Your task to perform on an android device: change timer sound Image 0: 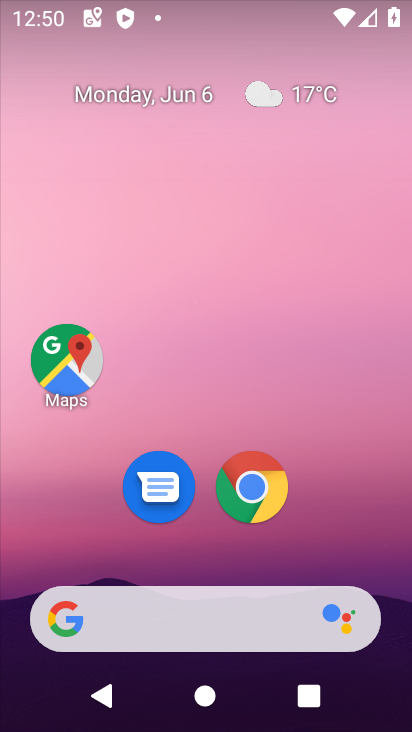
Step 0: drag from (175, 591) to (260, 21)
Your task to perform on an android device: change timer sound Image 1: 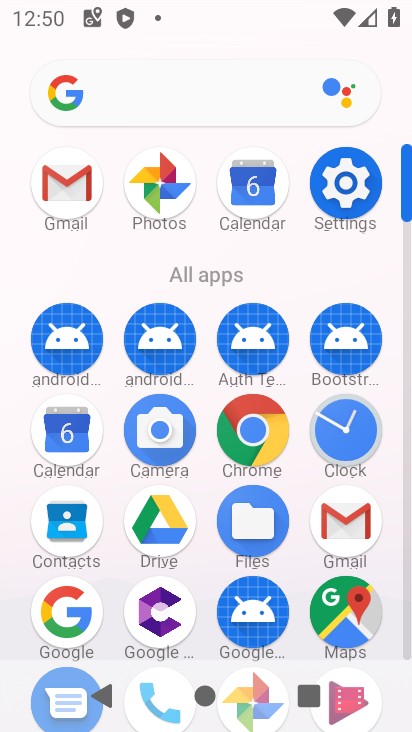
Step 1: click (358, 188)
Your task to perform on an android device: change timer sound Image 2: 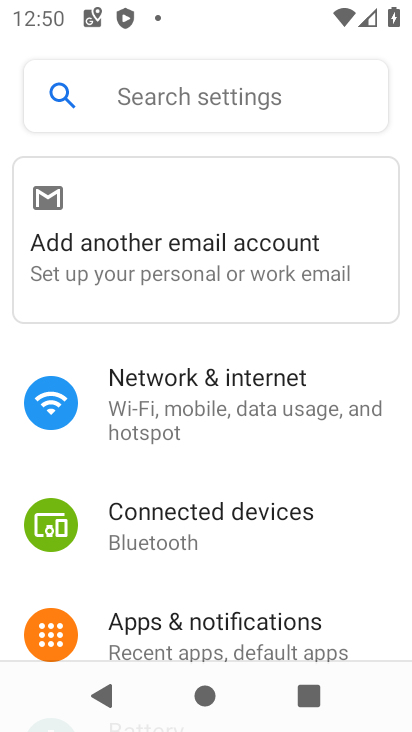
Step 2: press back button
Your task to perform on an android device: change timer sound Image 3: 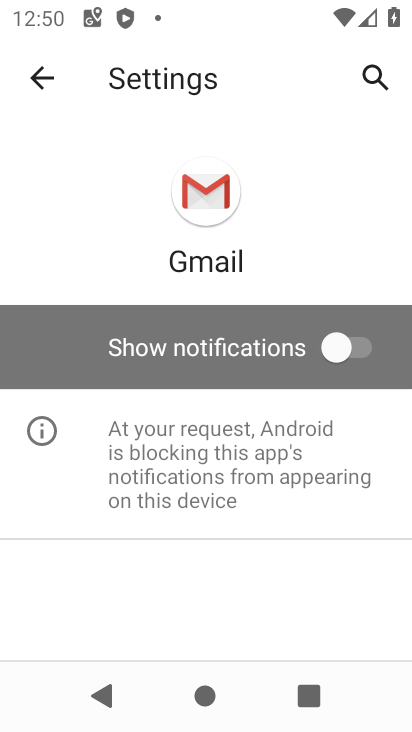
Step 3: press back button
Your task to perform on an android device: change timer sound Image 4: 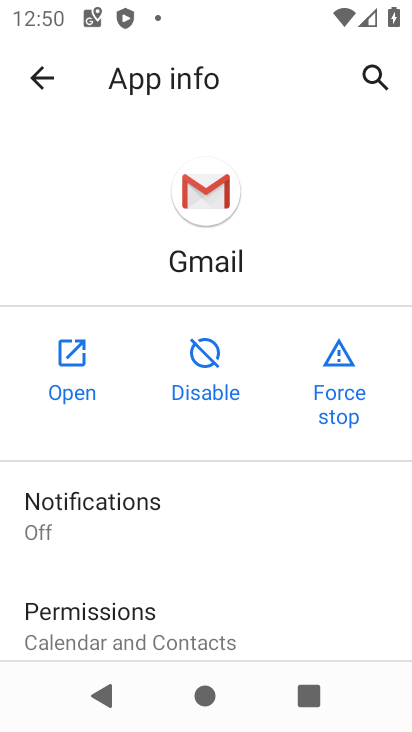
Step 4: press back button
Your task to perform on an android device: change timer sound Image 5: 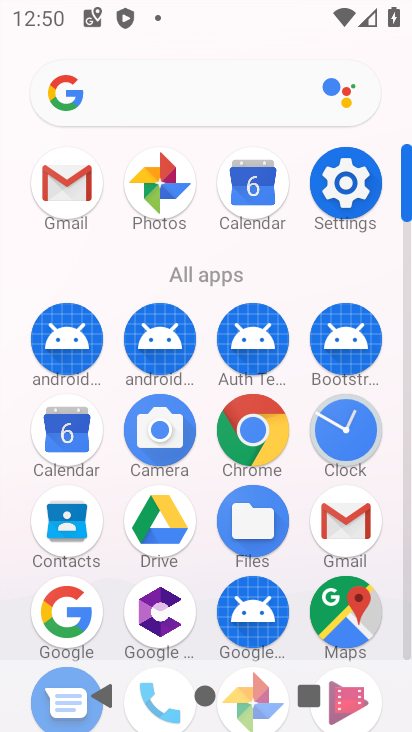
Step 5: click (357, 437)
Your task to perform on an android device: change timer sound Image 6: 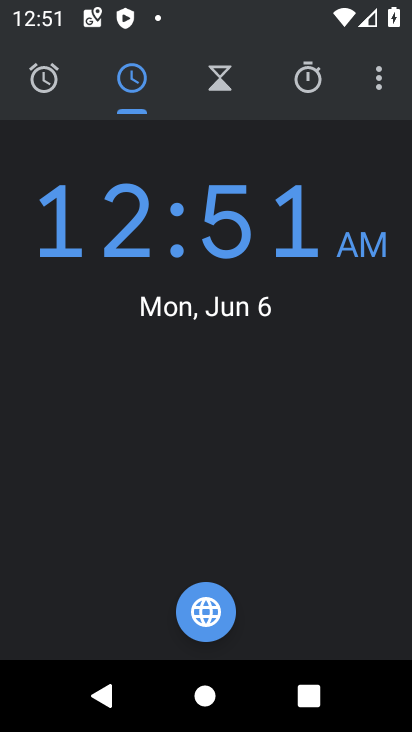
Step 6: click (381, 82)
Your task to perform on an android device: change timer sound Image 7: 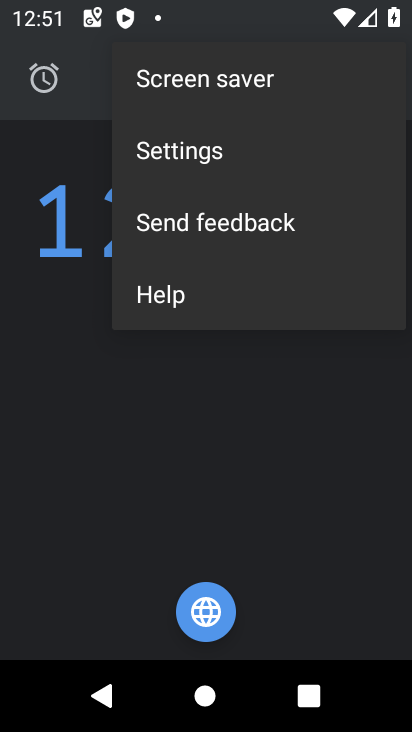
Step 7: click (235, 147)
Your task to perform on an android device: change timer sound Image 8: 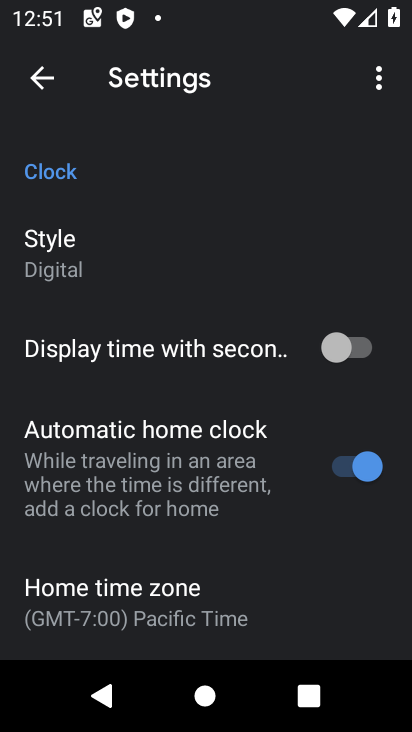
Step 8: drag from (193, 597) to (218, 72)
Your task to perform on an android device: change timer sound Image 9: 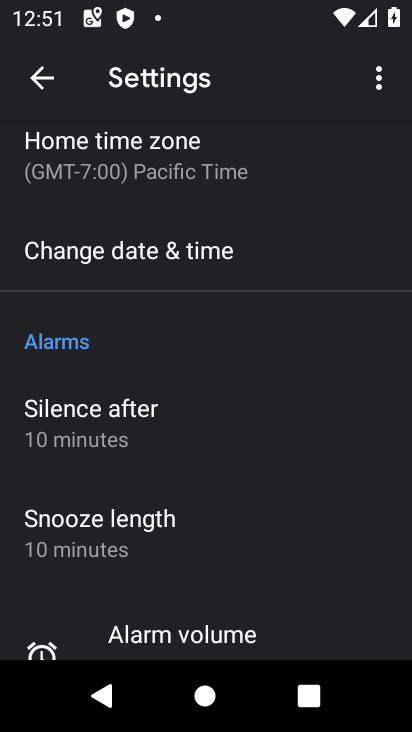
Step 9: drag from (161, 591) to (222, 182)
Your task to perform on an android device: change timer sound Image 10: 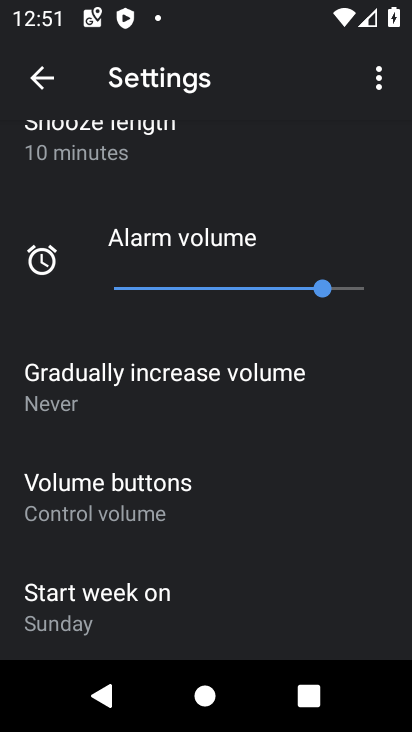
Step 10: drag from (191, 581) to (237, 97)
Your task to perform on an android device: change timer sound Image 11: 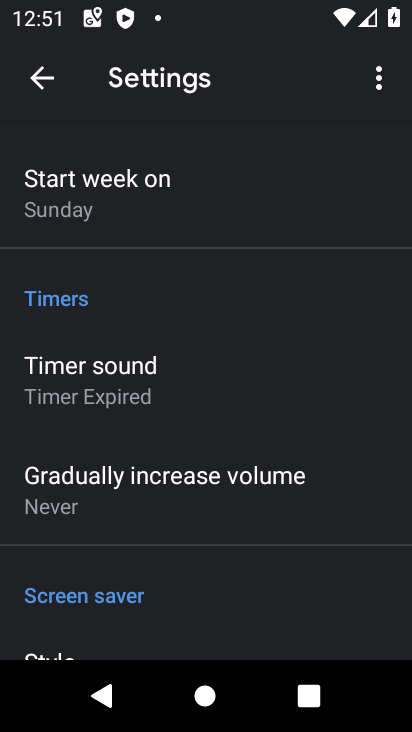
Step 11: click (181, 392)
Your task to perform on an android device: change timer sound Image 12: 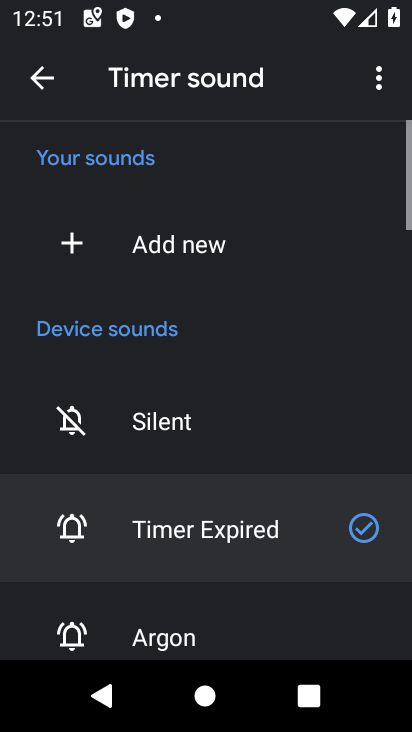
Step 12: drag from (163, 564) to (214, 233)
Your task to perform on an android device: change timer sound Image 13: 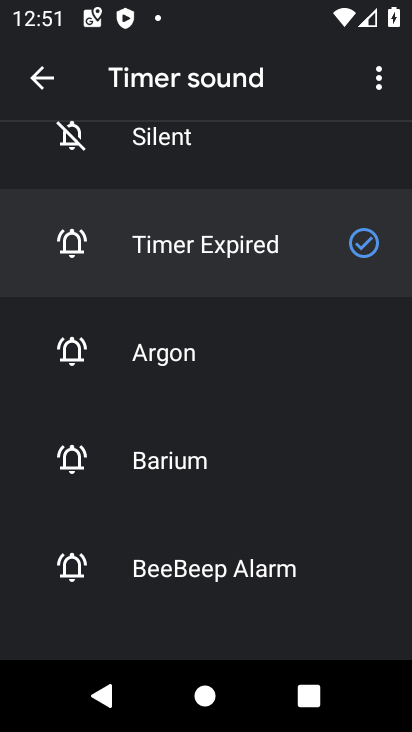
Step 13: click (151, 354)
Your task to perform on an android device: change timer sound Image 14: 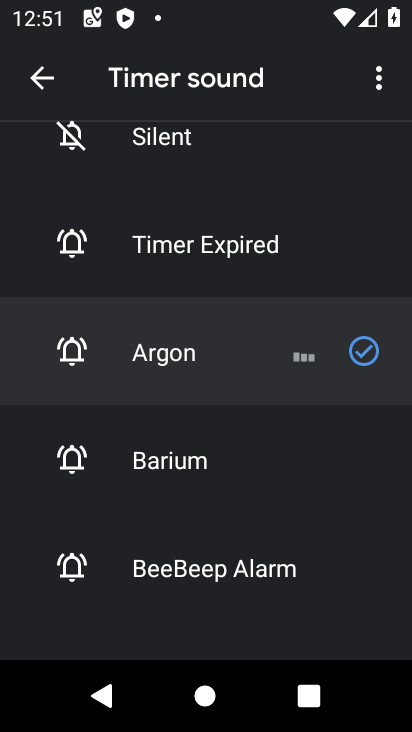
Step 14: task complete